Your task to perform on an android device: Open Chrome and go to the settings page Image 0: 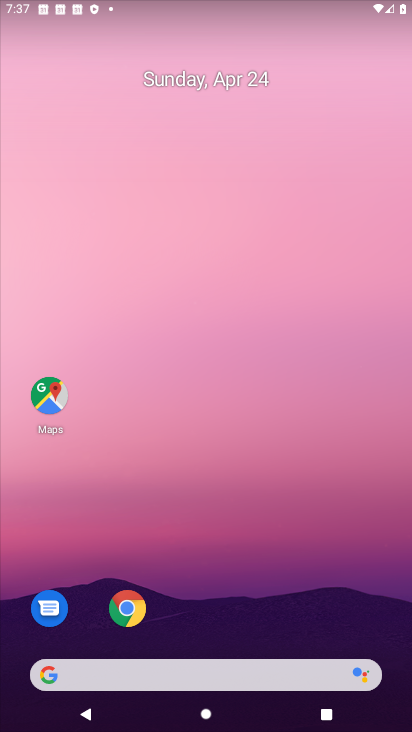
Step 0: drag from (303, 635) to (329, 111)
Your task to perform on an android device: Open Chrome and go to the settings page Image 1: 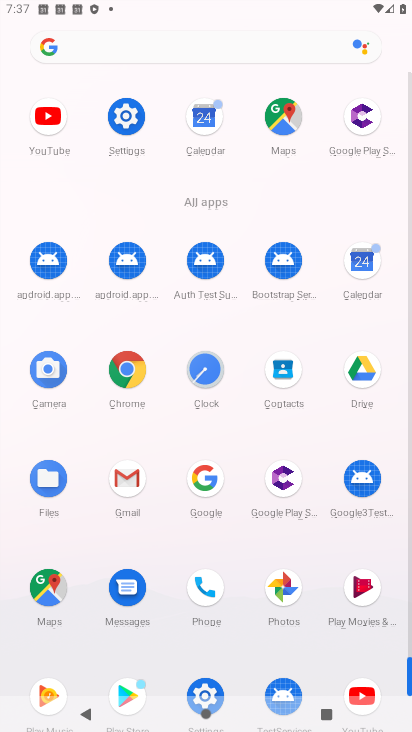
Step 1: click (117, 366)
Your task to perform on an android device: Open Chrome and go to the settings page Image 2: 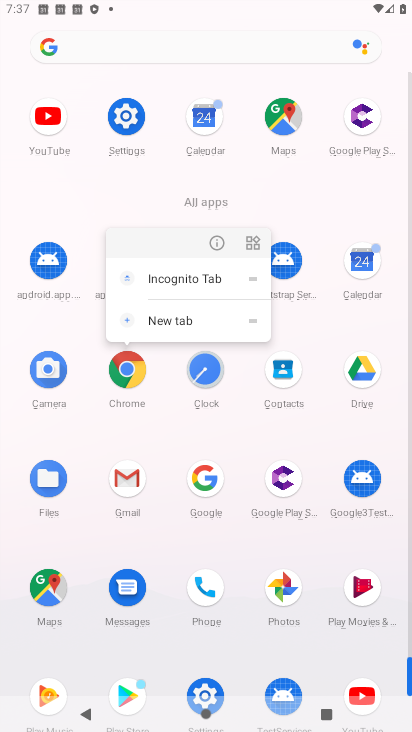
Step 2: click (129, 374)
Your task to perform on an android device: Open Chrome and go to the settings page Image 3: 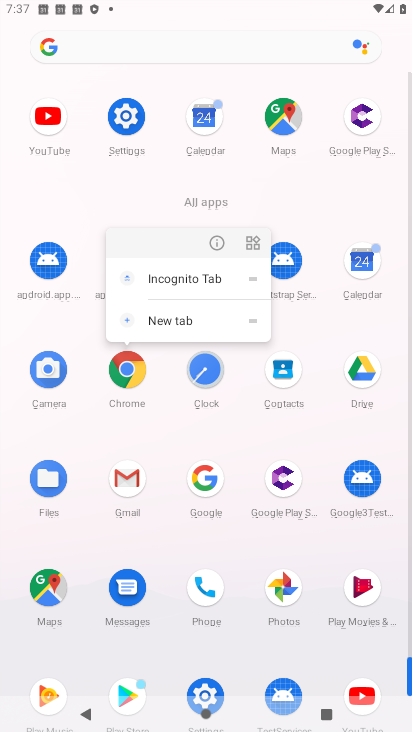
Step 3: click (128, 373)
Your task to perform on an android device: Open Chrome and go to the settings page Image 4: 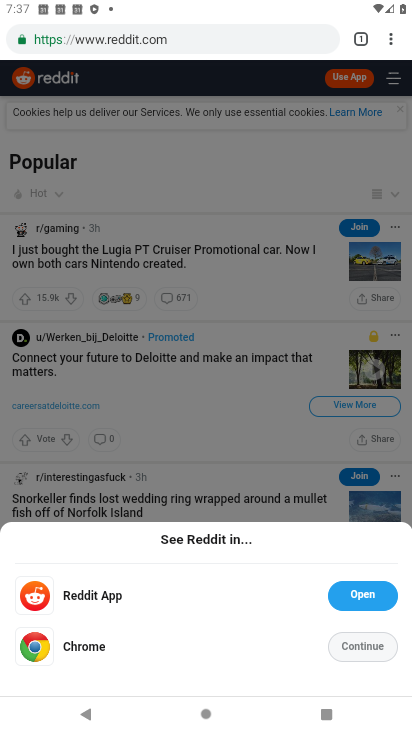
Step 4: task complete